Your task to perform on an android device: Go to Yahoo.com Image 0: 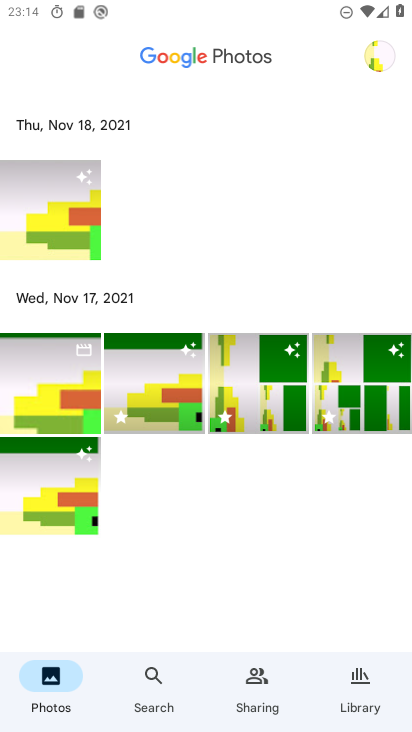
Step 0: drag from (229, 579) to (405, 159)
Your task to perform on an android device: Go to Yahoo.com Image 1: 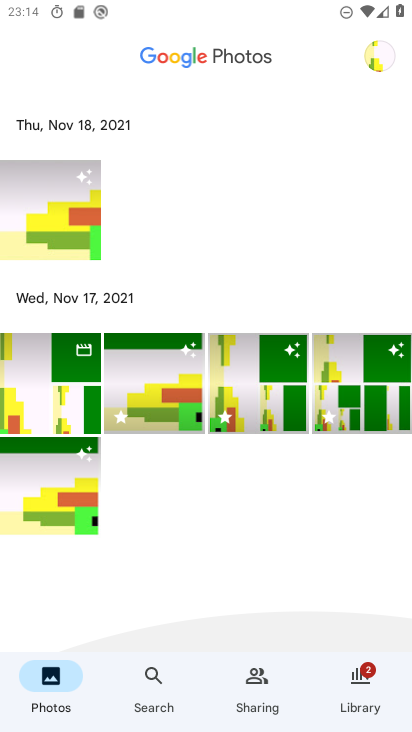
Step 1: press home button
Your task to perform on an android device: Go to Yahoo.com Image 2: 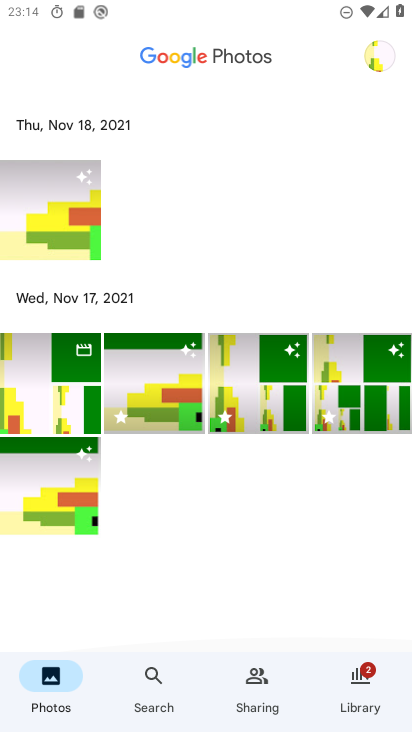
Step 2: drag from (405, 159) to (338, 324)
Your task to perform on an android device: Go to Yahoo.com Image 3: 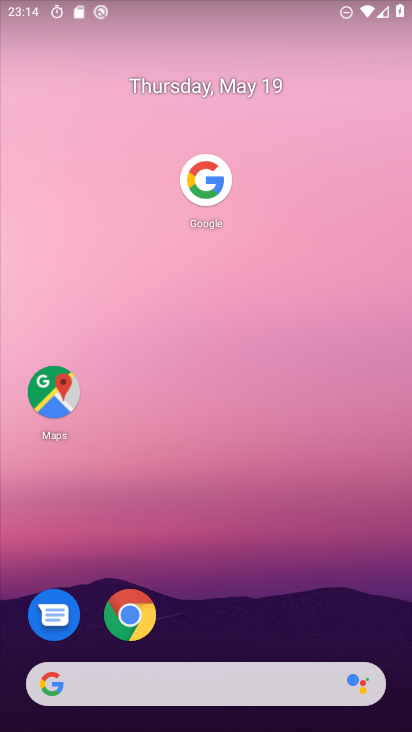
Step 3: click (134, 611)
Your task to perform on an android device: Go to Yahoo.com Image 4: 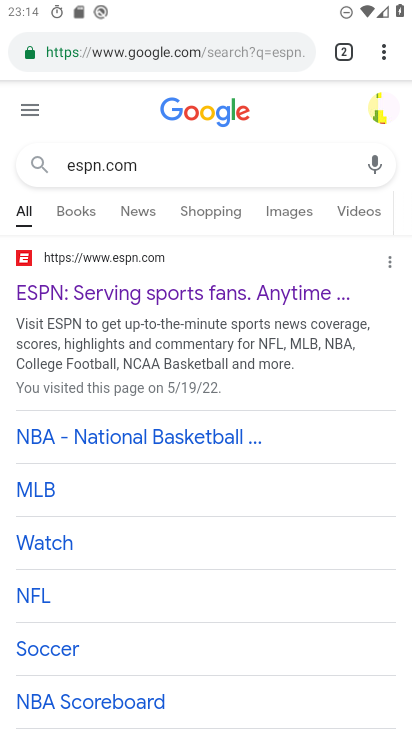
Step 4: press back button
Your task to perform on an android device: Go to Yahoo.com Image 5: 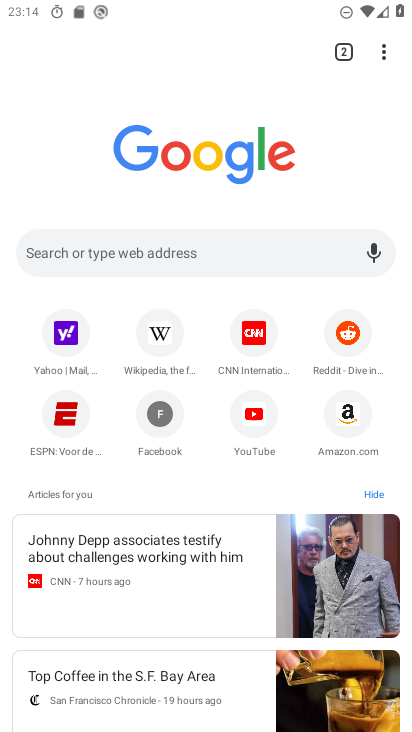
Step 5: click (74, 333)
Your task to perform on an android device: Go to Yahoo.com Image 6: 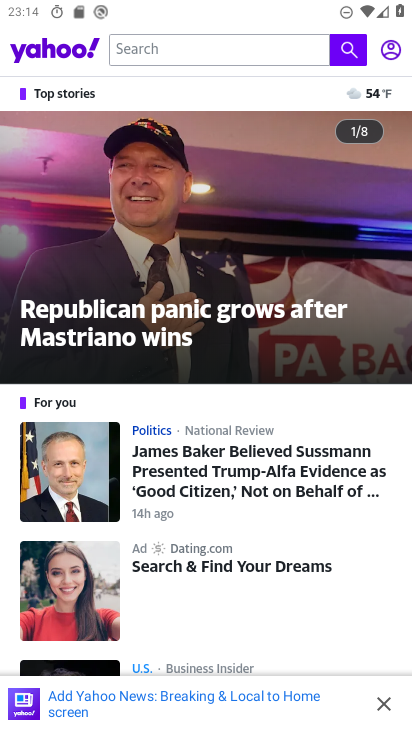
Step 6: task complete